Your task to perform on an android device: Search for Italian restaurants on Maps Image 0: 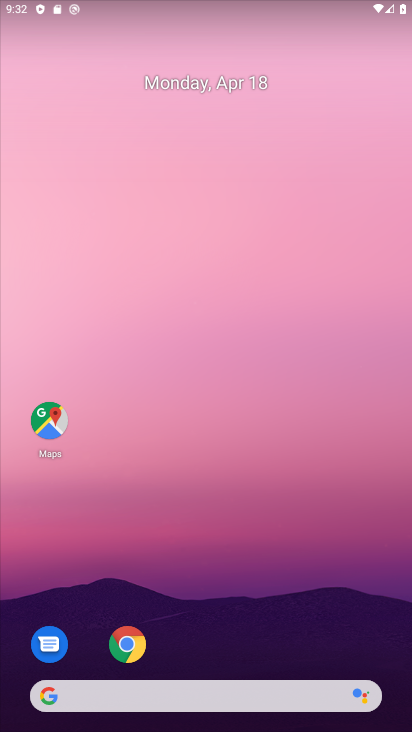
Step 0: click (48, 400)
Your task to perform on an android device: Search for Italian restaurants on Maps Image 1: 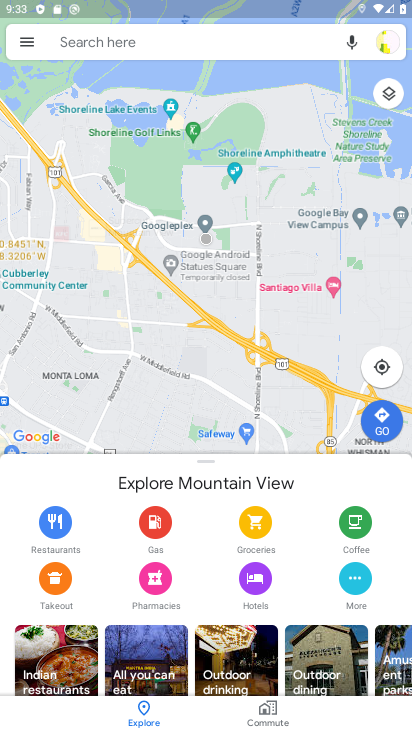
Step 1: click (161, 39)
Your task to perform on an android device: Search for Italian restaurants on Maps Image 2: 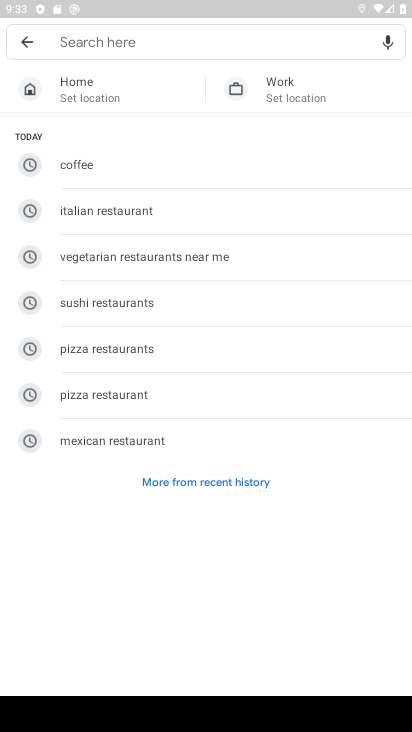
Step 2: type "italian restaurants"
Your task to perform on an android device: Search for Italian restaurants on Maps Image 3: 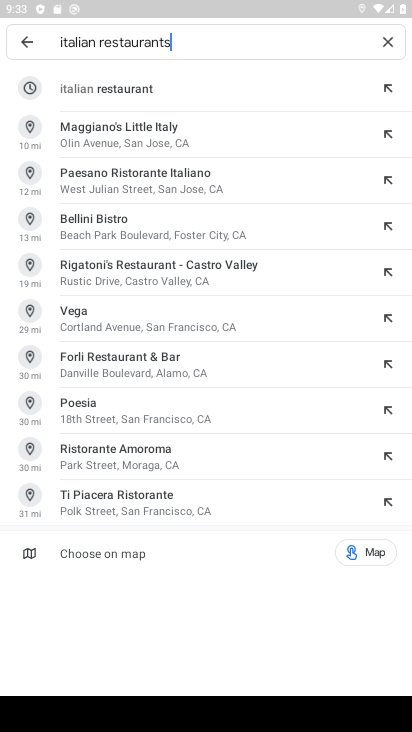
Step 3: click (142, 81)
Your task to perform on an android device: Search for Italian restaurants on Maps Image 4: 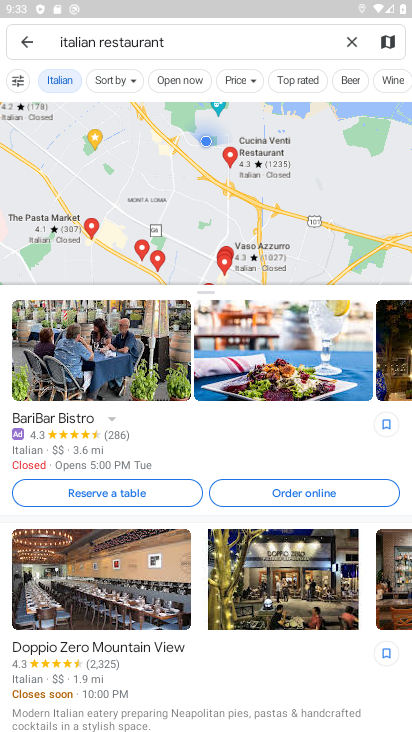
Step 4: task complete